Your task to perform on an android device: turn off picture-in-picture Image 0: 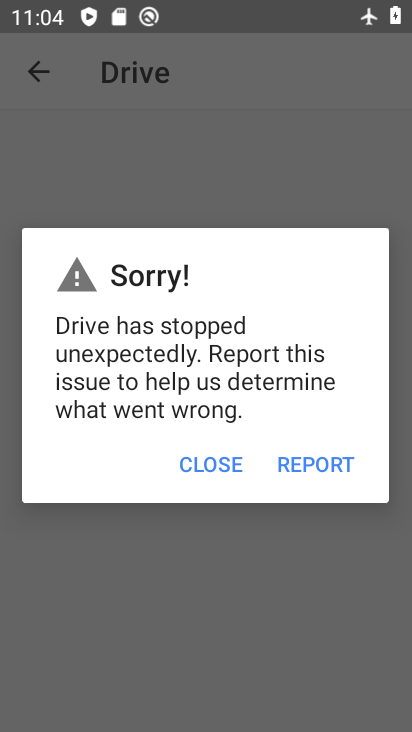
Step 0: click (233, 465)
Your task to perform on an android device: turn off picture-in-picture Image 1: 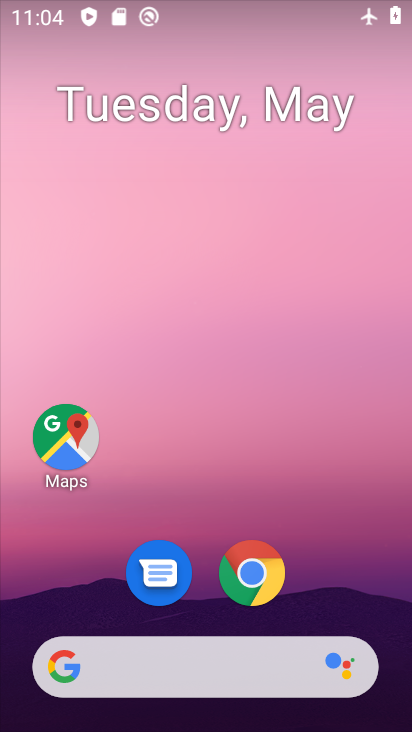
Step 1: click (252, 570)
Your task to perform on an android device: turn off picture-in-picture Image 2: 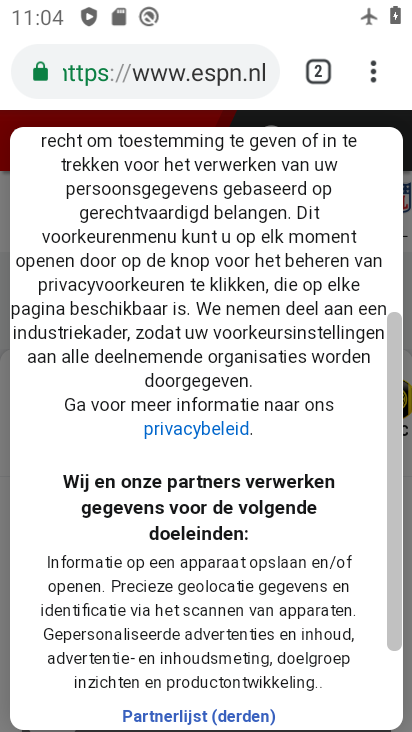
Step 2: click (367, 69)
Your task to perform on an android device: turn off picture-in-picture Image 3: 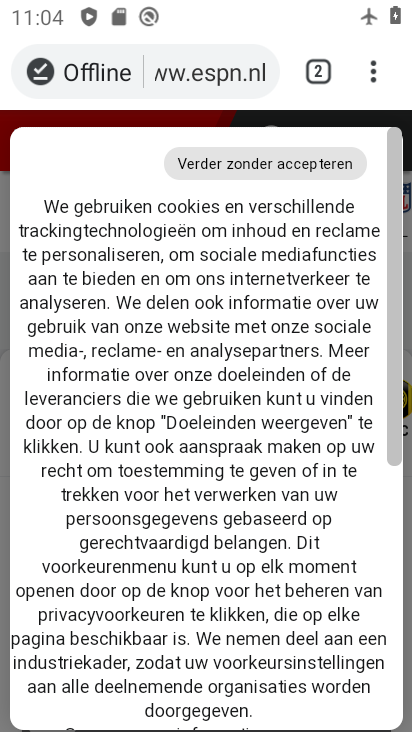
Step 3: click (378, 62)
Your task to perform on an android device: turn off picture-in-picture Image 4: 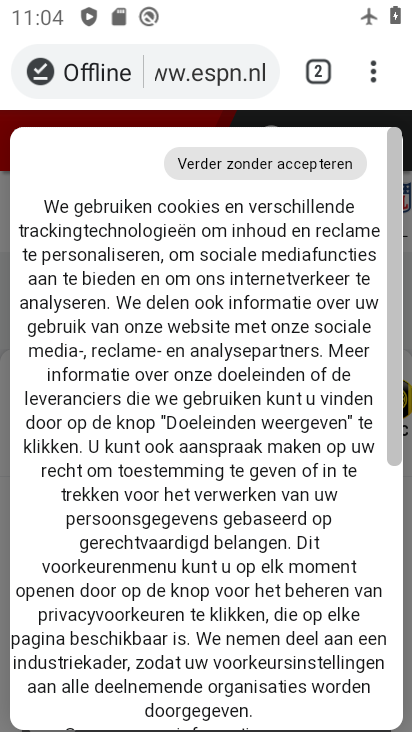
Step 4: press back button
Your task to perform on an android device: turn off picture-in-picture Image 5: 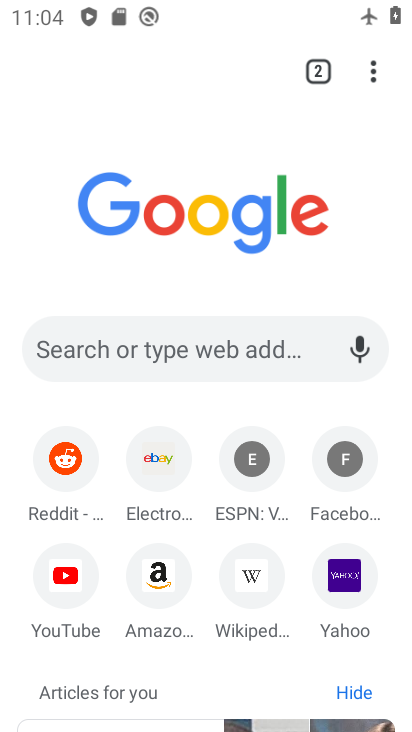
Step 5: press back button
Your task to perform on an android device: turn off picture-in-picture Image 6: 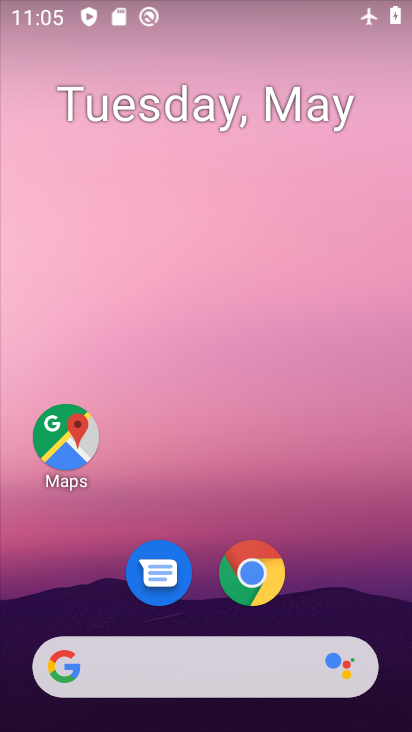
Step 6: click (234, 582)
Your task to perform on an android device: turn off picture-in-picture Image 7: 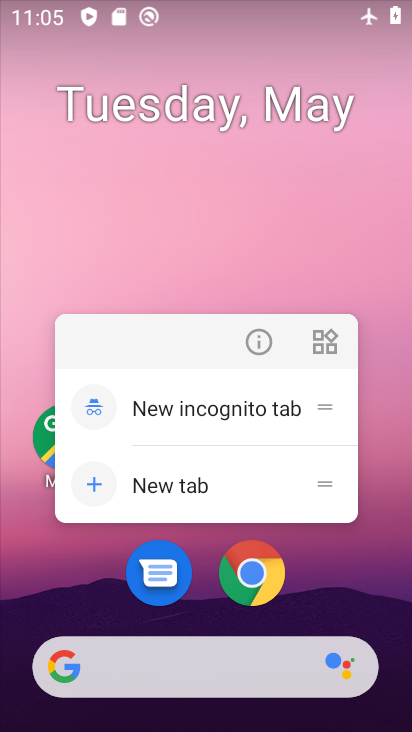
Step 7: click (260, 336)
Your task to perform on an android device: turn off picture-in-picture Image 8: 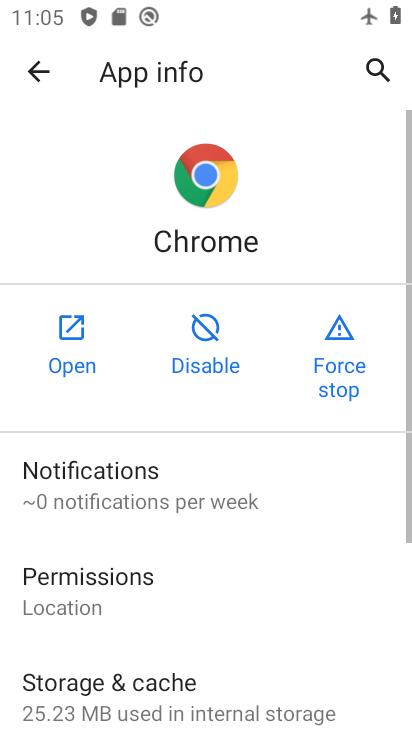
Step 8: drag from (184, 713) to (167, 372)
Your task to perform on an android device: turn off picture-in-picture Image 9: 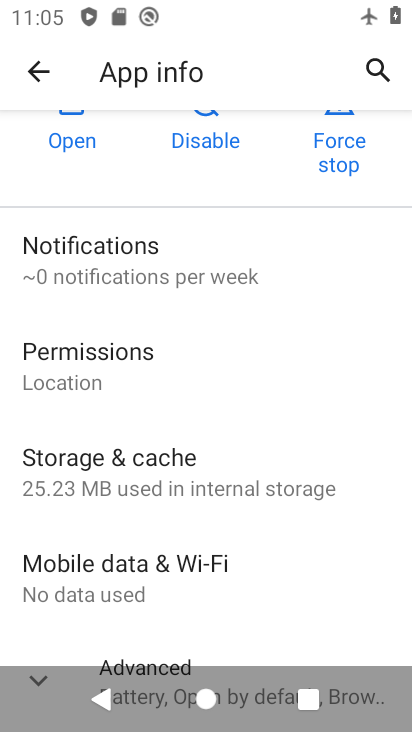
Step 9: click (160, 659)
Your task to perform on an android device: turn off picture-in-picture Image 10: 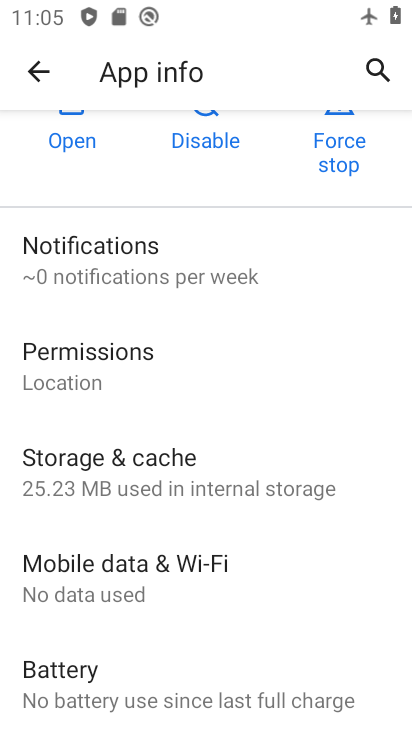
Step 10: drag from (152, 690) to (187, 314)
Your task to perform on an android device: turn off picture-in-picture Image 11: 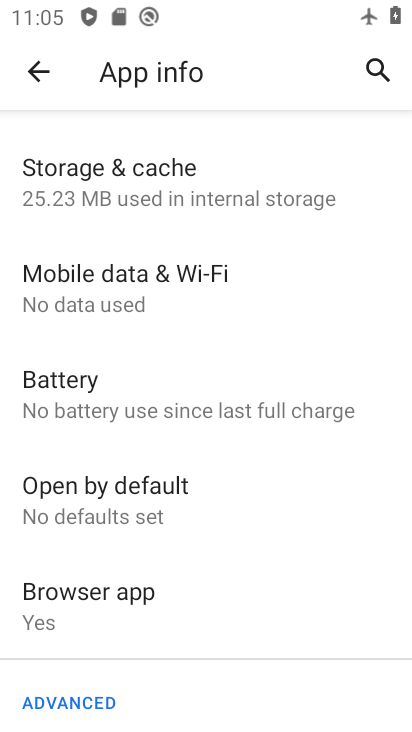
Step 11: drag from (165, 682) to (163, 390)
Your task to perform on an android device: turn off picture-in-picture Image 12: 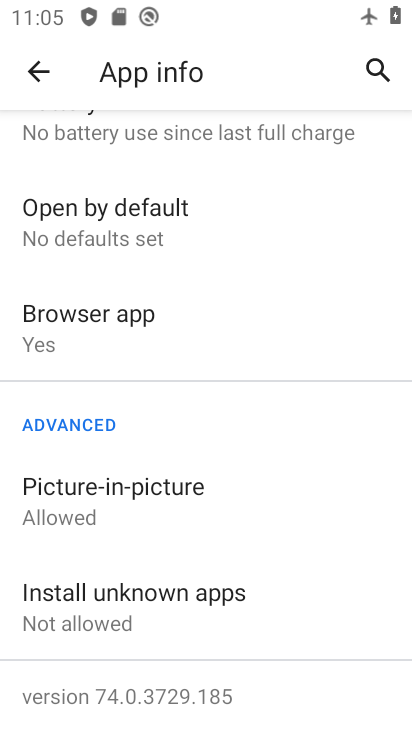
Step 12: drag from (115, 697) to (147, 421)
Your task to perform on an android device: turn off picture-in-picture Image 13: 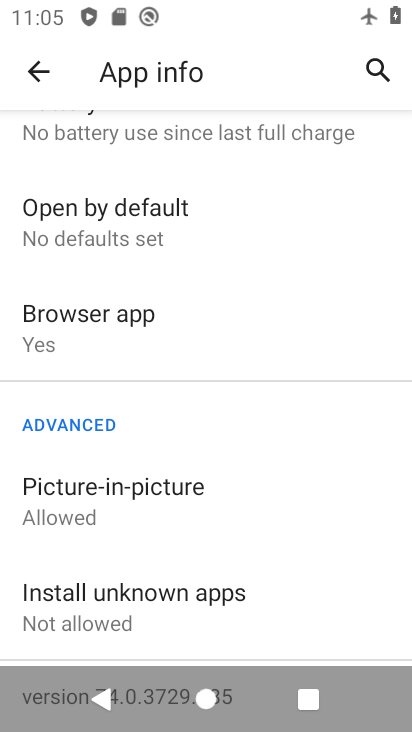
Step 13: click (115, 493)
Your task to perform on an android device: turn off picture-in-picture Image 14: 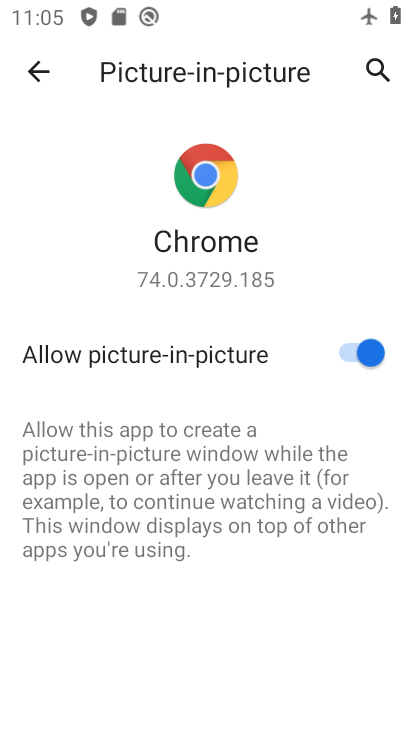
Step 14: click (349, 354)
Your task to perform on an android device: turn off picture-in-picture Image 15: 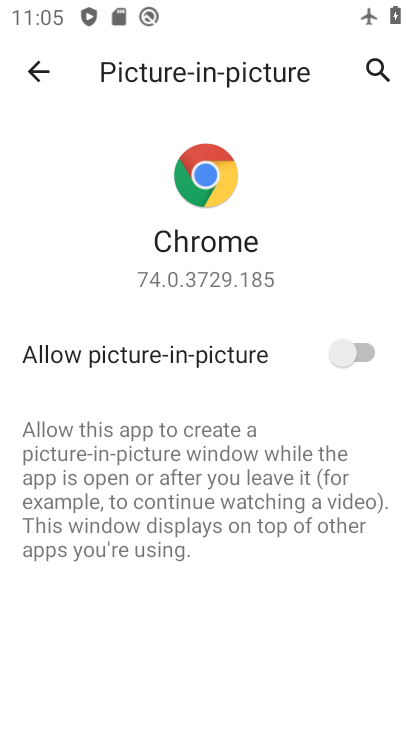
Step 15: task complete